Your task to perform on an android device: Open battery settings Image 0: 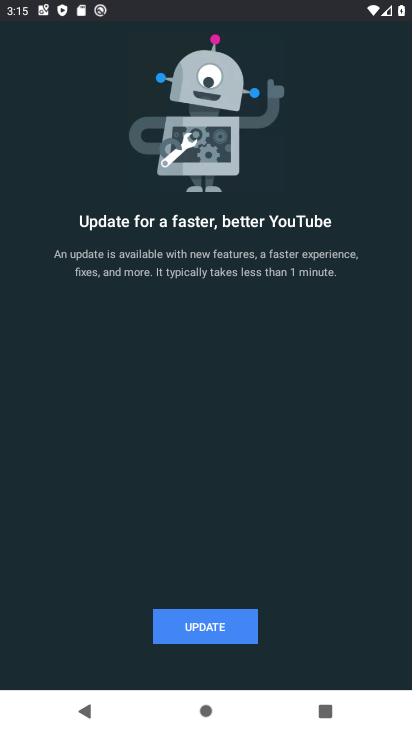
Step 0: press home button
Your task to perform on an android device: Open battery settings Image 1: 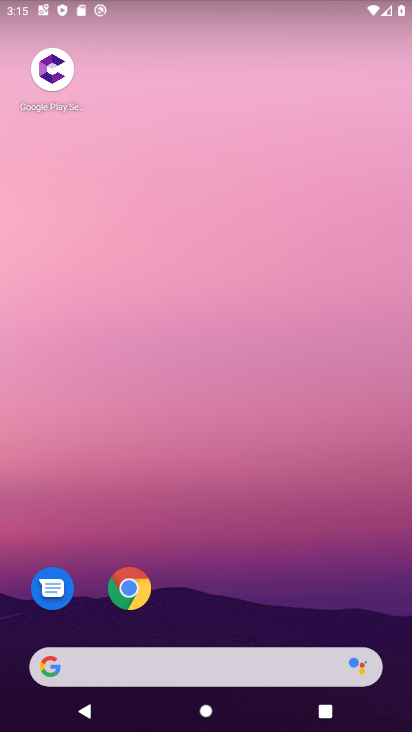
Step 1: drag from (281, 593) to (262, 22)
Your task to perform on an android device: Open battery settings Image 2: 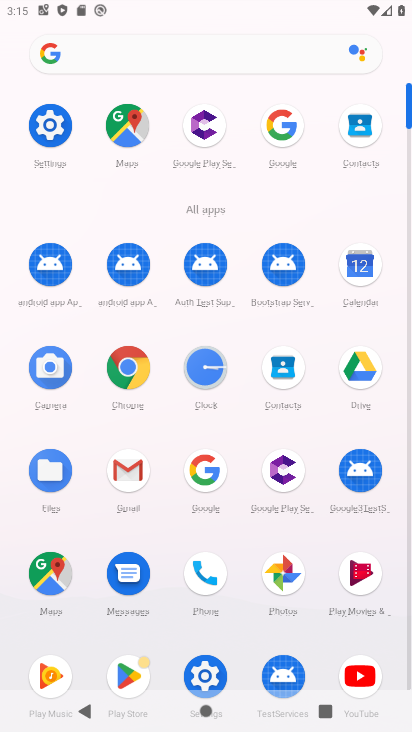
Step 2: click (201, 662)
Your task to perform on an android device: Open battery settings Image 3: 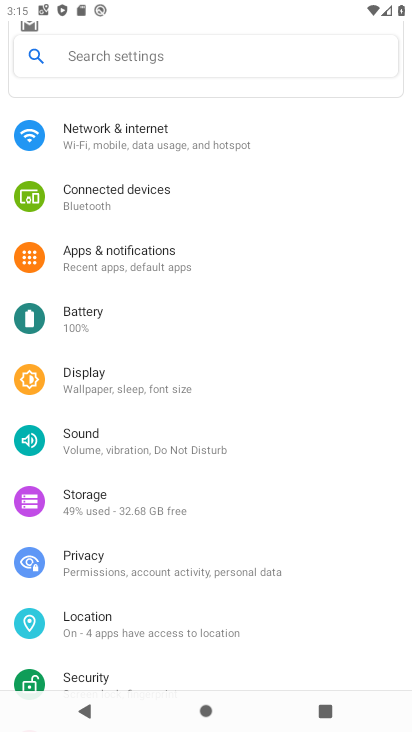
Step 3: click (148, 316)
Your task to perform on an android device: Open battery settings Image 4: 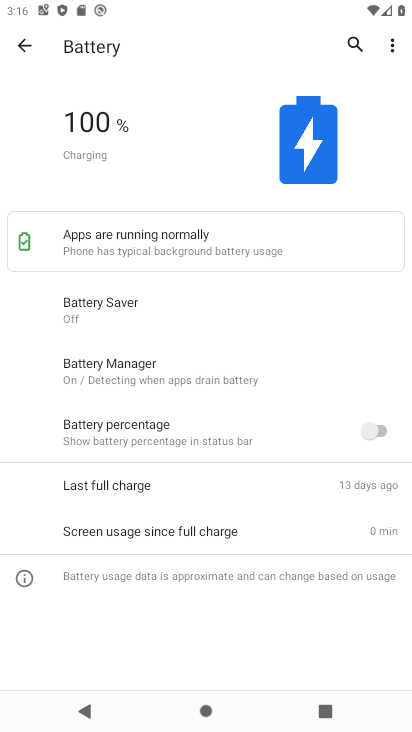
Step 4: task complete